Your task to perform on an android device: Show me productivity apps on the Play Store Image 0: 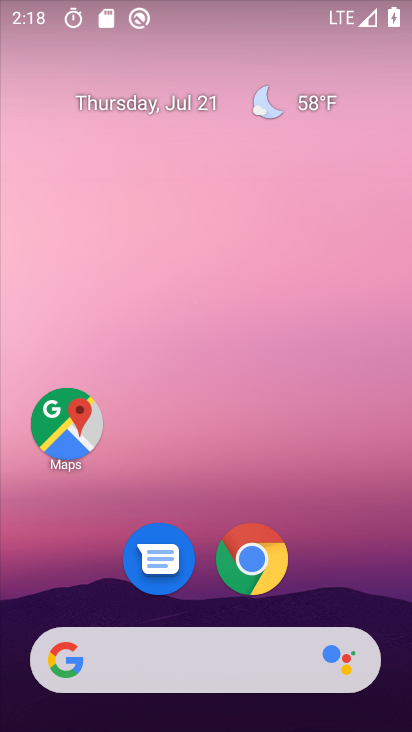
Step 0: drag from (355, 562) to (363, 91)
Your task to perform on an android device: Show me productivity apps on the Play Store Image 1: 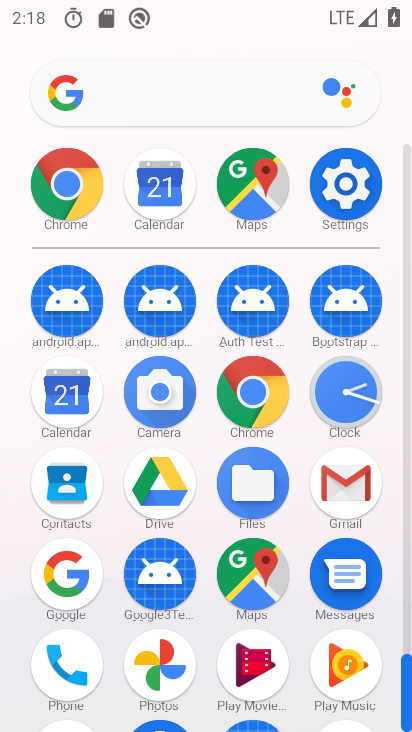
Step 1: drag from (399, 524) to (400, 311)
Your task to perform on an android device: Show me productivity apps on the Play Store Image 2: 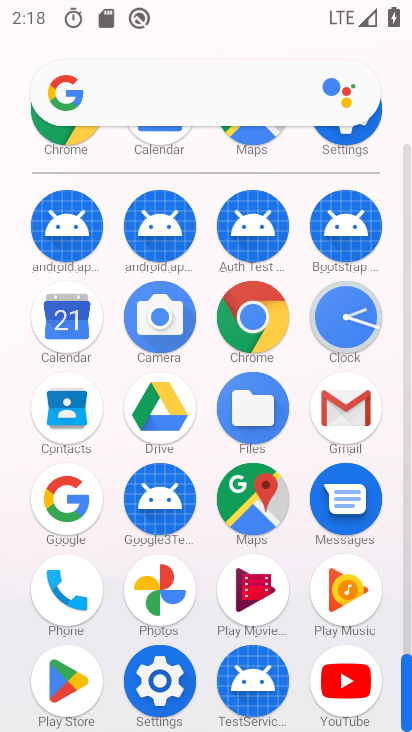
Step 2: click (73, 682)
Your task to perform on an android device: Show me productivity apps on the Play Store Image 3: 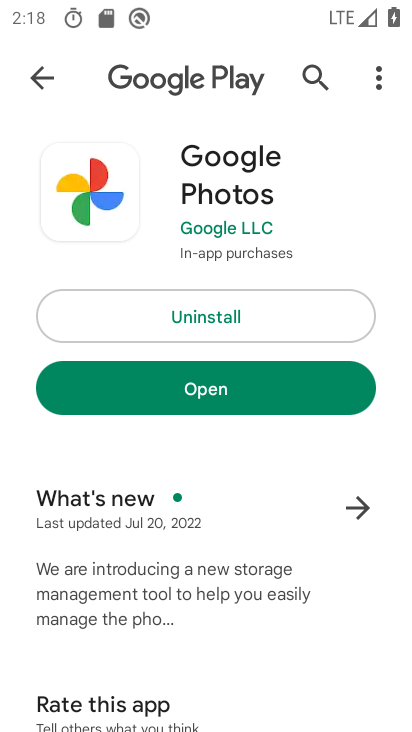
Step 3: press back button
Your task to perform on an android device: Show me productivity apps on the Play Store Image 4: 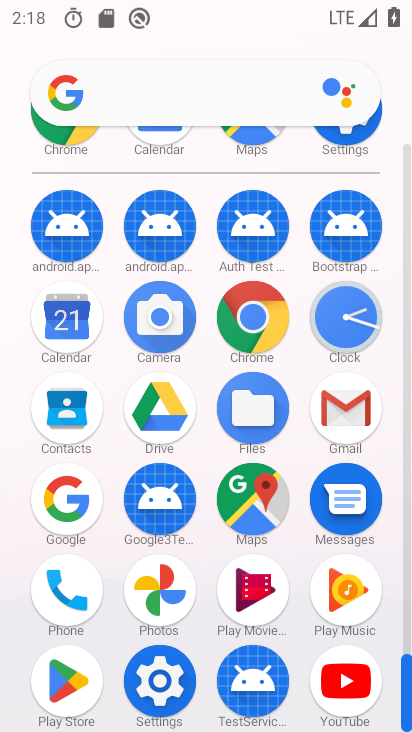
Step 4: click (62, 692)
Your task to perform on an android device: Show me productivity apps on the Play Store Image 5: 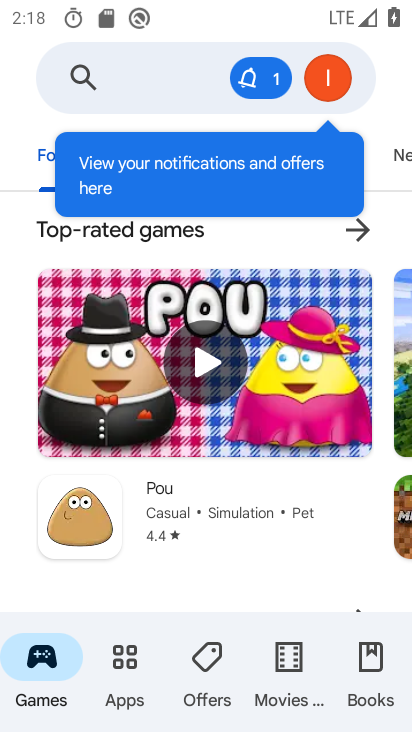
Step 5: click (126, 665)
Your task to perform on an android device: Show me productivity apps on the Play Store Image 6: 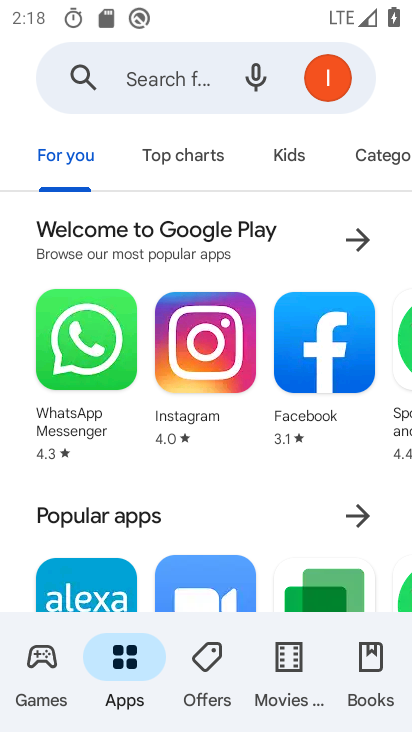
Step 6: task complete